Your task to perform on an android device: Clear the cart on ebay. Search for usb-b on ebay, select the first entry, and add it to the cart. Image 0: 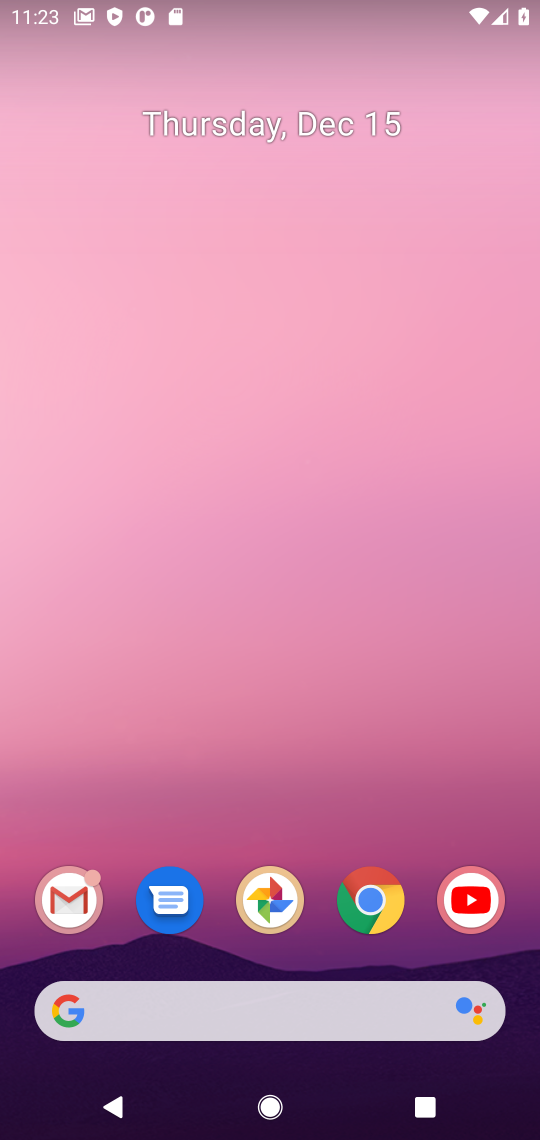
Step 0: click (364, 905)
Your task to perform on an android device: Clear the cart on ebay. Search for usb-b on ebay, select the first entry, and add it to the cart. Image 1: 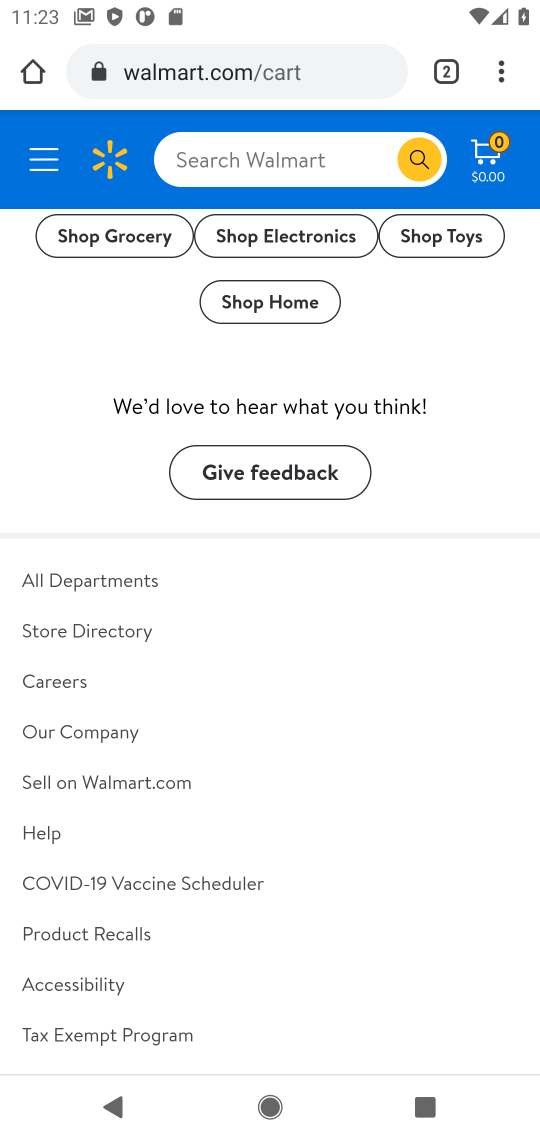
Step 1: click (264, 63)
Your task to perform on an android device: Clear the cart on ebay. Search for usb-b on ebay, select the first entry, and add it to the cart. Image 2: 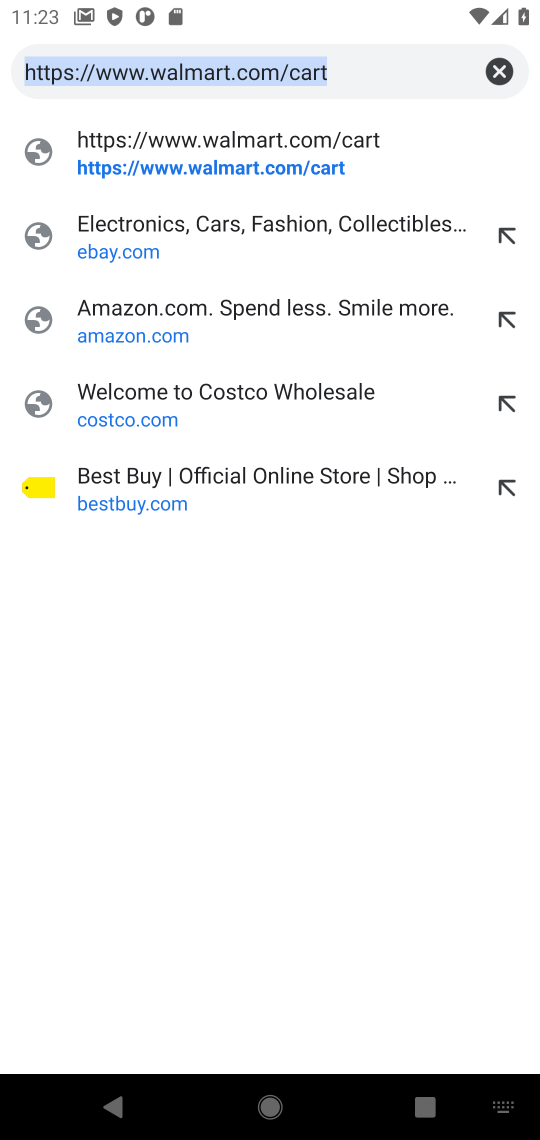
Step 2: click (227, 227)
Your task to perform on an android device: Clear the cart on ebay. Search for usb-b on ebay, select the first entry, and add it to the cart. Image 3: 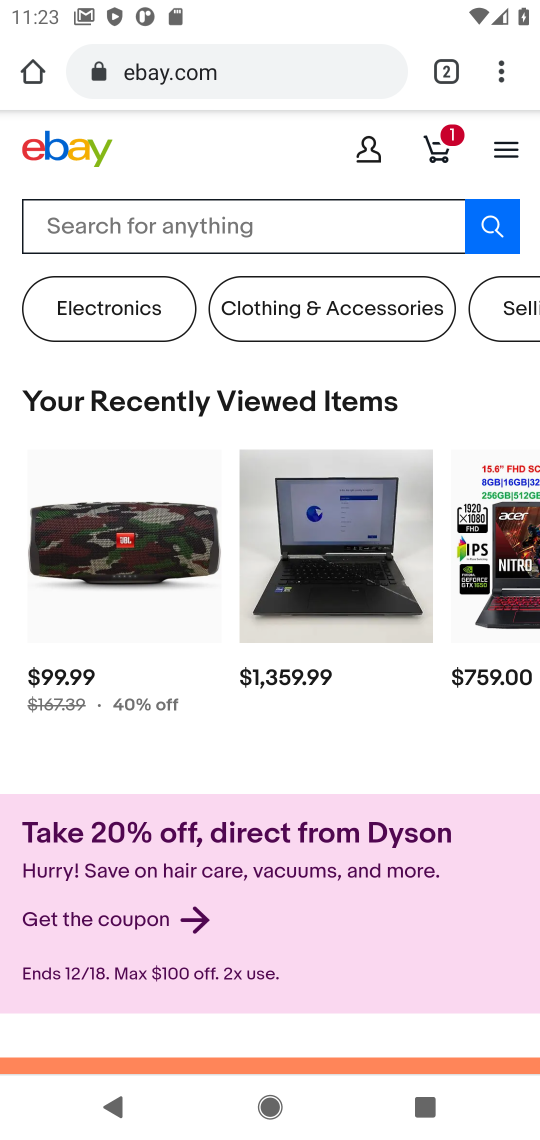
Step 3: click (442, 146)
Your task to perform on an android device: Clear the cart on ebay. Search for usb-b on ebay, select the first entry, and add it to the cart. Image 4: 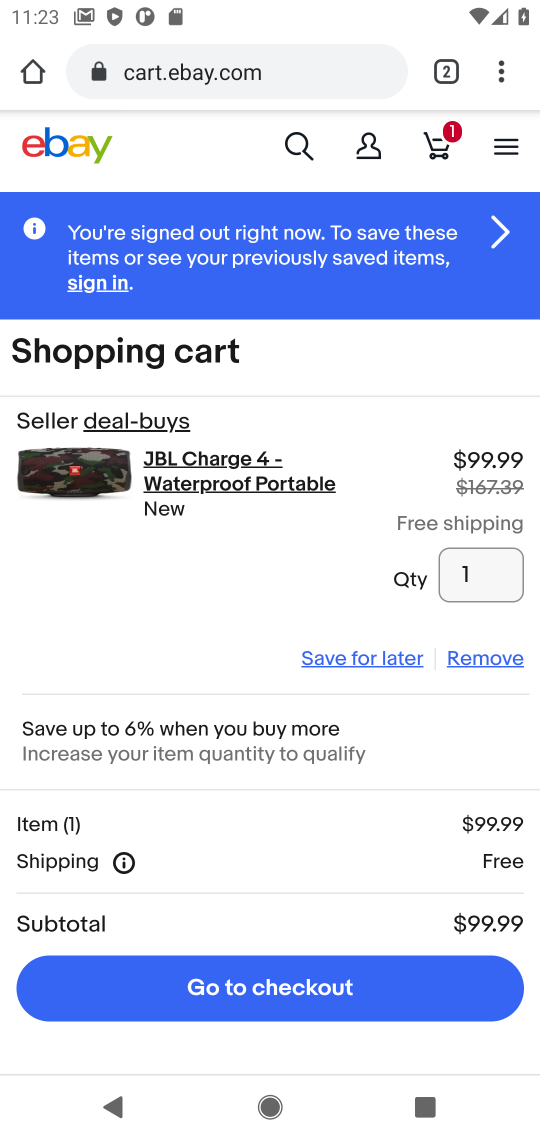
Step 4: click (481, 653)
Your task to perform on an android device: Clear the cart on ebay. Search for usb-b on ebay, select the first entry, and add it to the cart. Image 5: 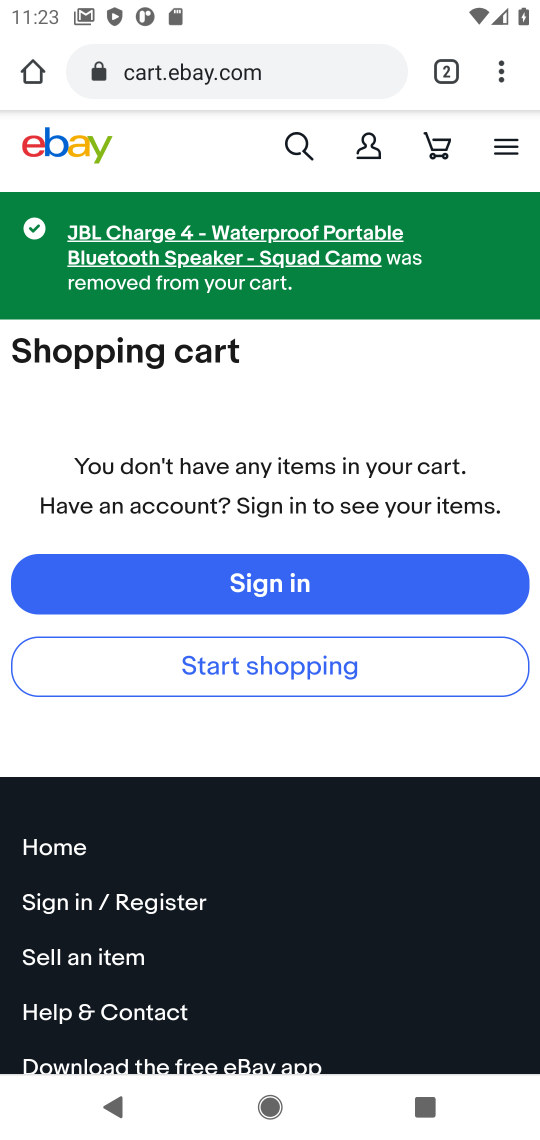
Step 5: click (300, 146)
Your task to perform on an android device: Clear the cart on ebay. Search for usb-b on ebay, select the first entry, and add it to the cart. Image 6: 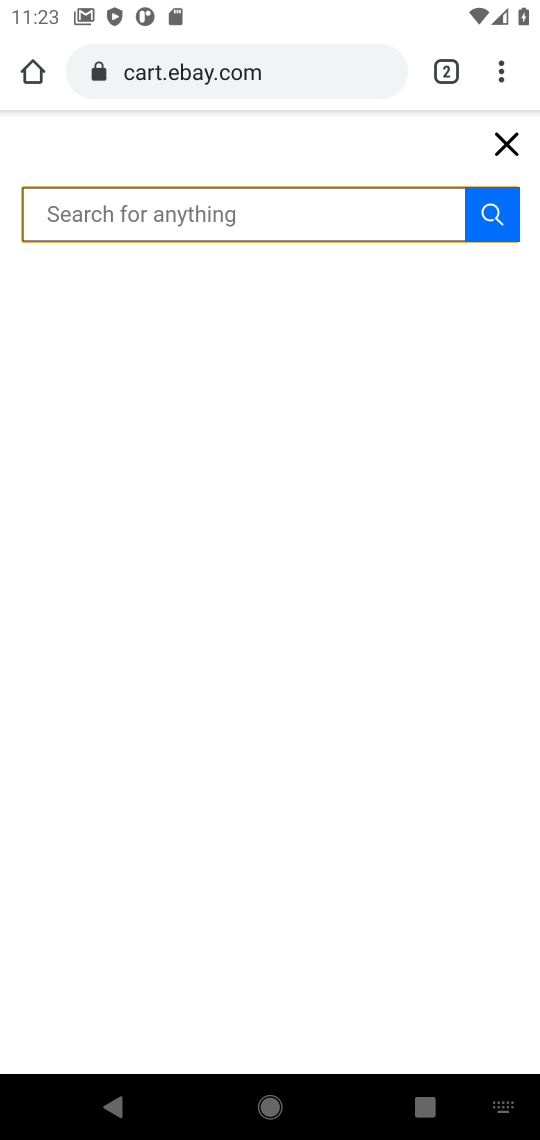
Step 6: press enter
Your task to perform on an android device: Clear the cart on ebay. Search for usb-b on ebay, select the first entry, and add it to the cart. Image 7: 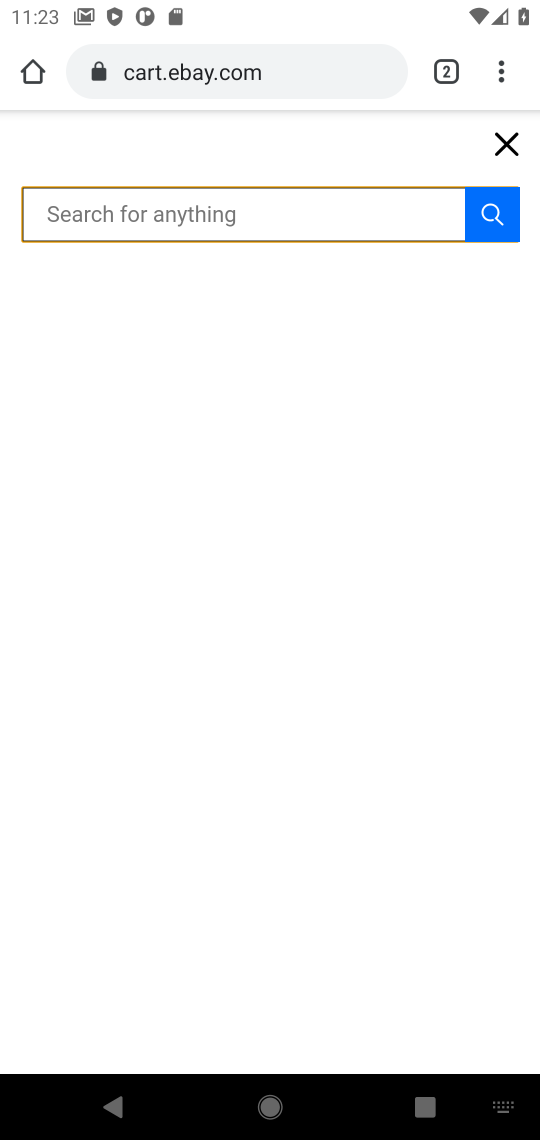
Step 7: type "usb-b"
Your task to perform on an android device: Clear the cart on ebay. Search for usb-b on ebay, select the first entry, and add it to the cart. Image 8: 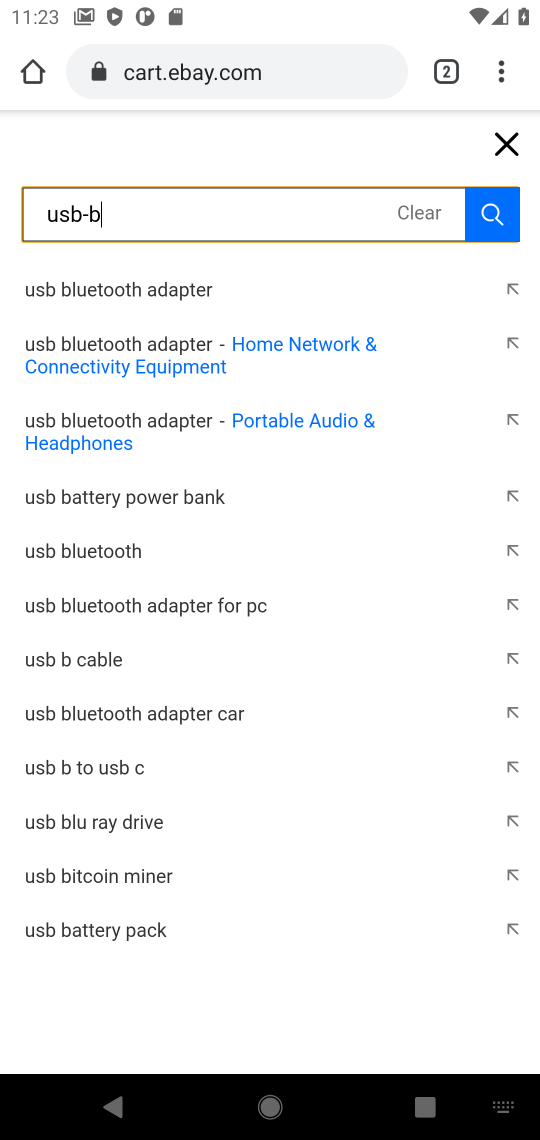
Step 8: click (492, 205)
Your task to perform on an android device: Clear the cart on ebay. Search for usb-b on ebay, select the first entry, and add it to the cart. Image 9: 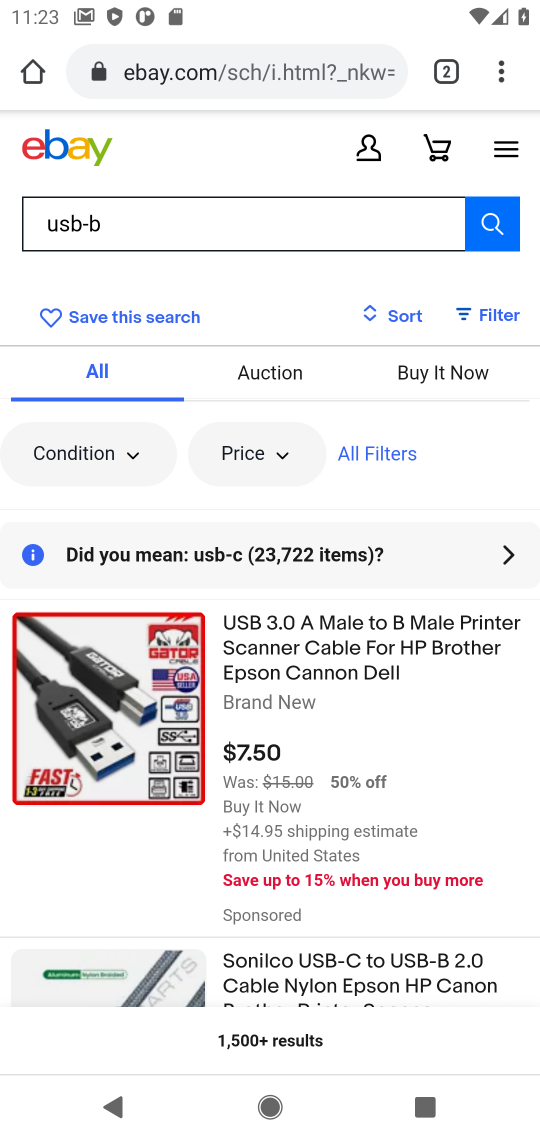
Step 9: click (107, 697)
Your task to perform on an android device: Clear the cart on ebay. Search for usb-b on ebay, select the first entry, and add it to the cart. Image 10: 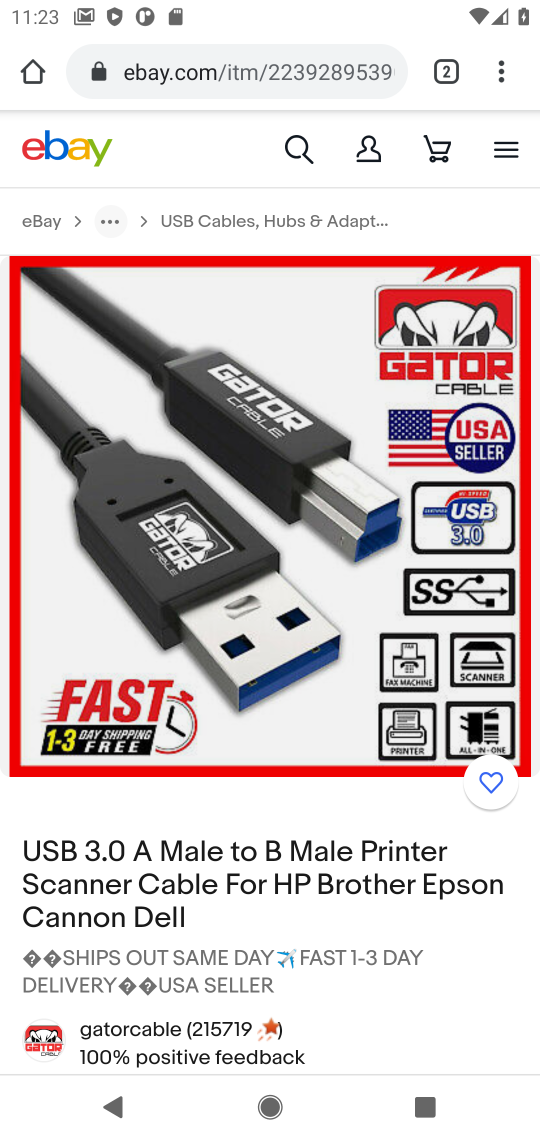
Step 10: drag from (438, 947) to (517, 557)
Your task to perform on an android device: Clear the cart on ebay. Search for usb-b on ebay, select the first entry, and add it to the cart. Image 11: 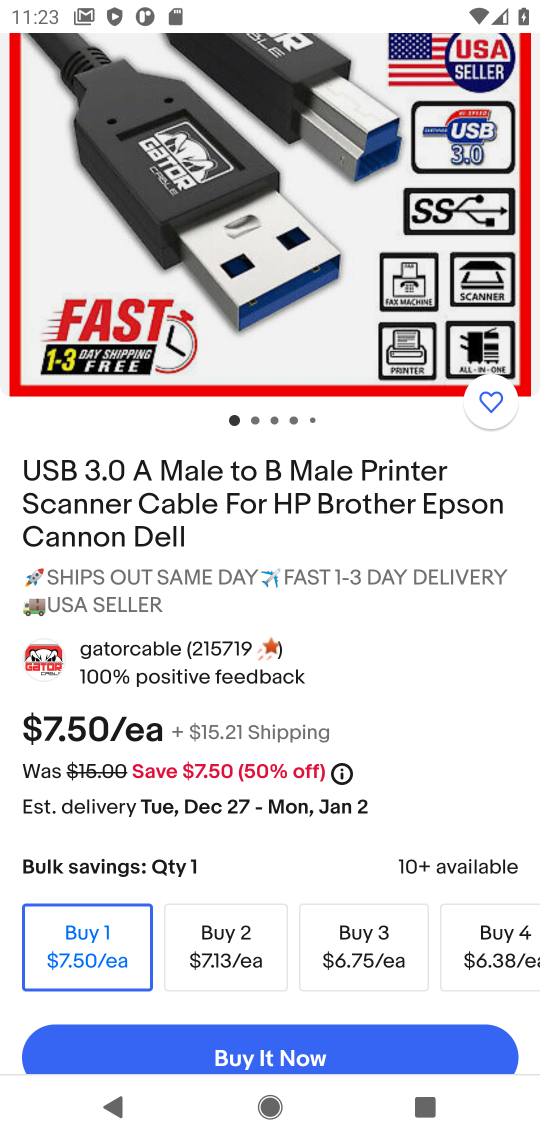
Step 11: drag from (400, 715) to (411, 450)
Your task to perform on an android device: Clear the cart on ebay. Search for usb-b on ebay, select the first entry, and add it to the cart. Image 12: 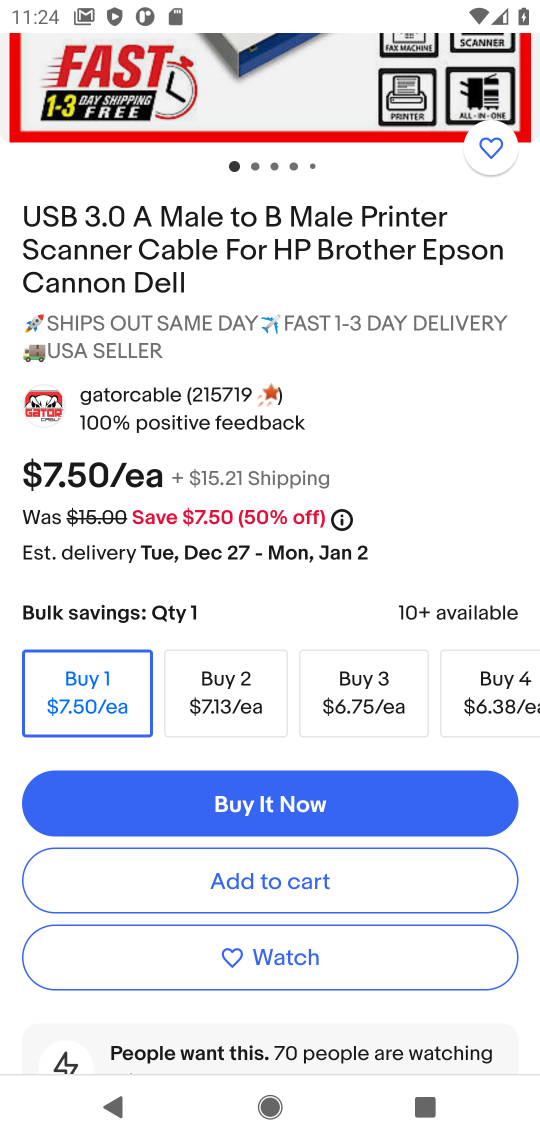
Step 12: click (301, 886)
Your task to perform on an android device: Clear the cart on ebay. Search for usb-b on ebay, select the first entry, and add it to the cart. Image 13: 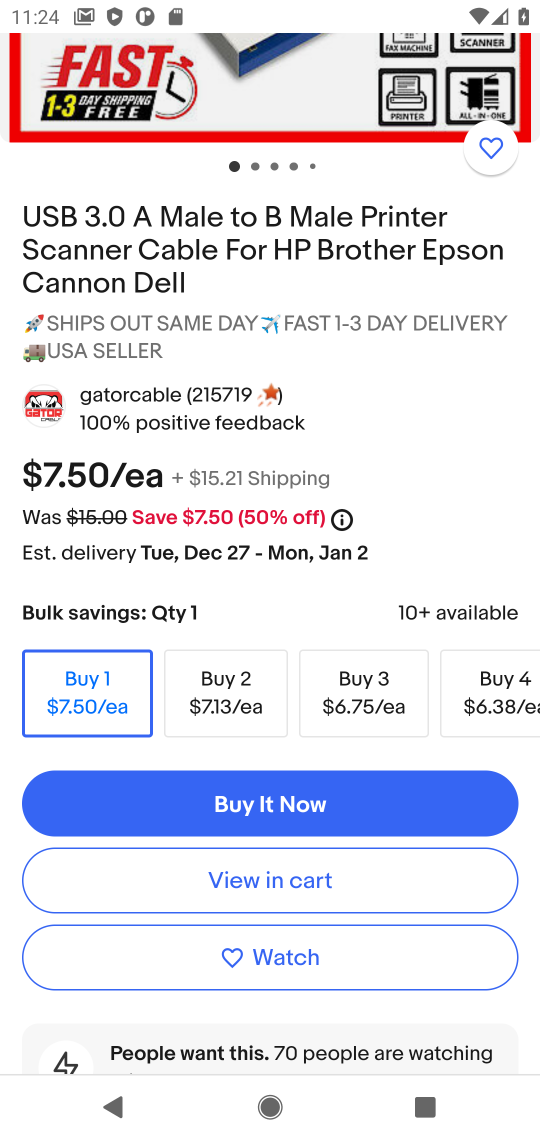
Step 13: click (301, 886)
Your task to perform on an android device: Clear the cart on ebay. Search for usb-b on ebay, select the first entry, and add it to the cart. Image 14: 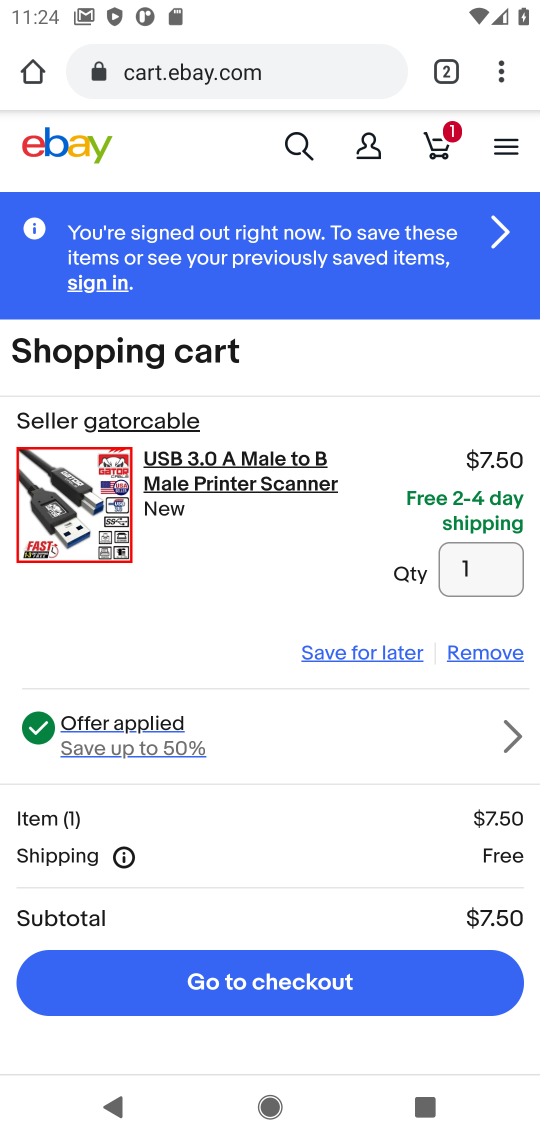
Step 14: task complete